Your task to perform on an android device: change your default location settings in chrome Image 0: 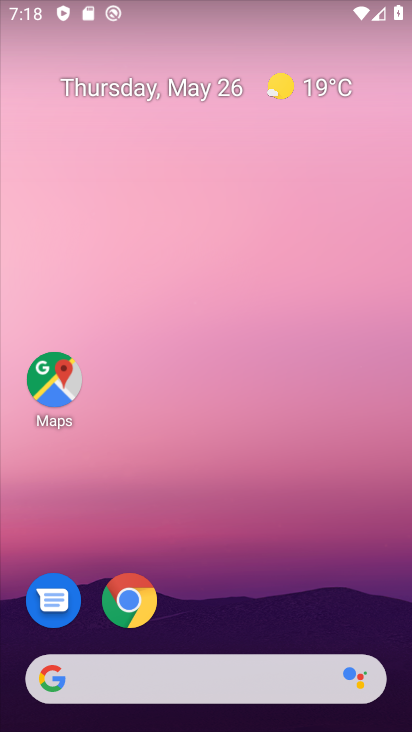
Step 0: drag from (273, 682) to (273, 205)
Your task to perform on an android device: change your default location settings in chrome Image 1: 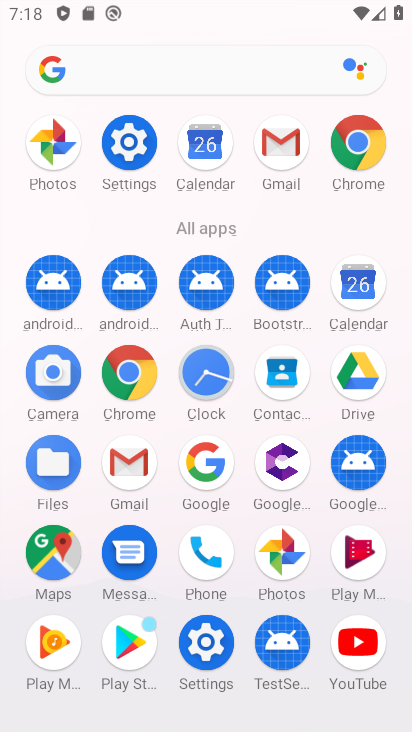
Step 1: click (349, 144)
Your task to perform on an android device: change your default location settings in chrome Image 2: 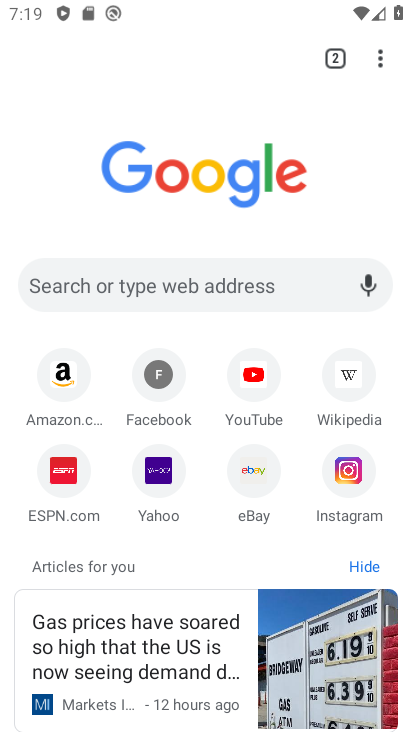
Step 2: click (377, 58)
Your task to perform on an android device: change your default location settings in chrome Image 3: 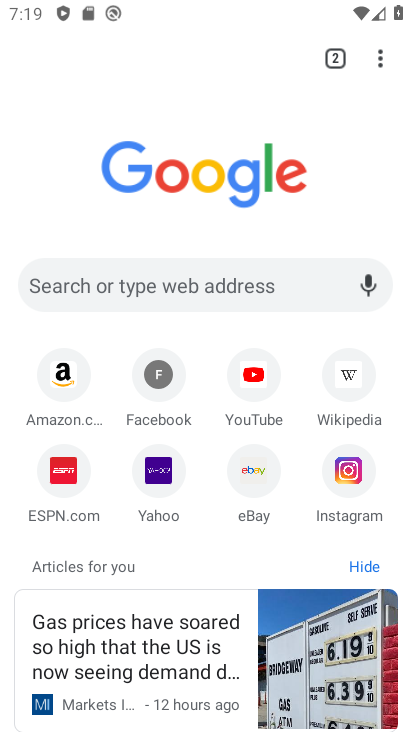
Step 3: click (387, 57)
Your task to perform on an android device: change your default location settings in chrome Image 4: 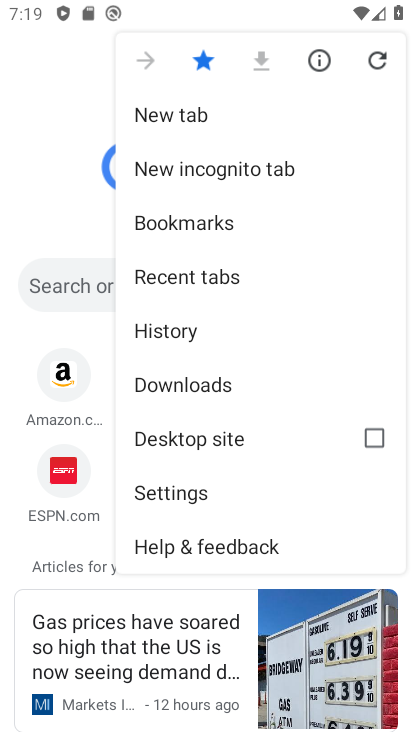
Step 4: click (192, 484)
Your task to perform on an android device: change your default location settings in chrome Image 5: 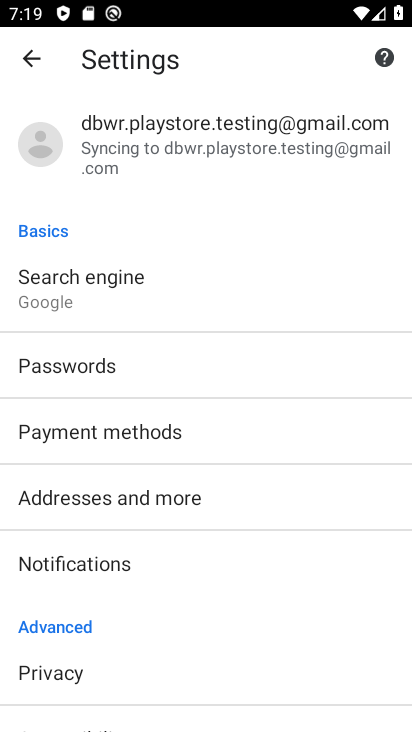
Step 5: drag from (94, 662) to (167, 298)
Your task to perform on an android device: change your default location settings in chrome Image 6: 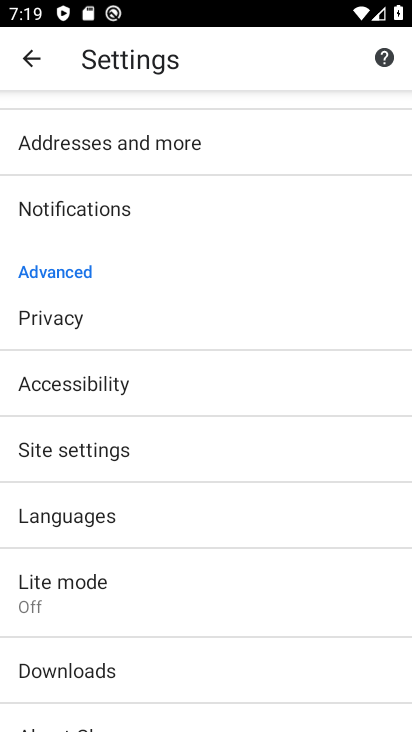
Step 6: click (121, 453)
Your task to perform on an android device: change your default location settings in chrome Image 7: 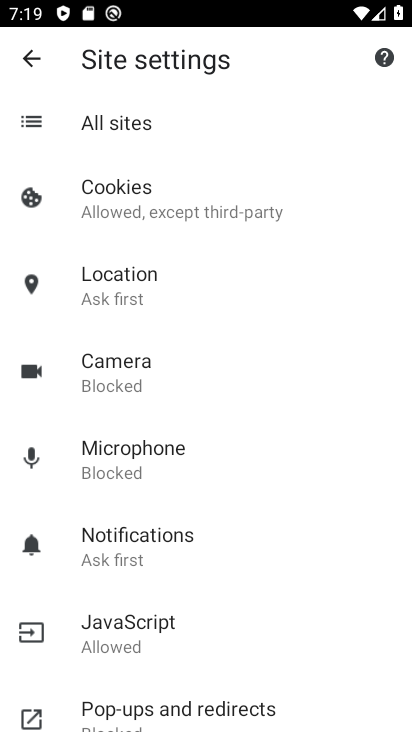
Step 7: click (137, 293)
Your task to perform on an android device: change your default location settings in chrome Image 8: 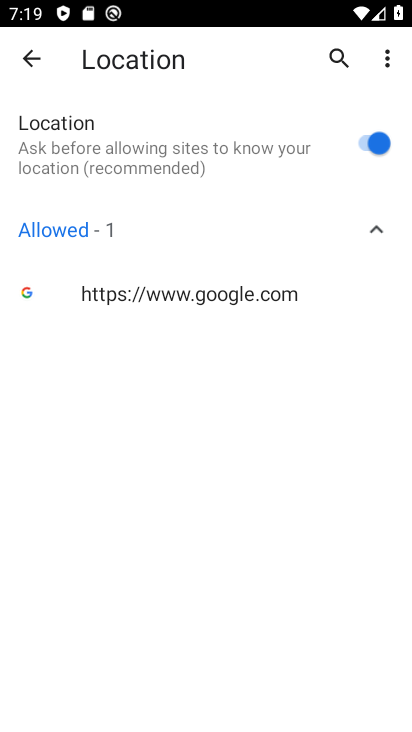
Step 8: task complete